Your task to perform on an android device: move a message to another label in the gmail app Image 0: 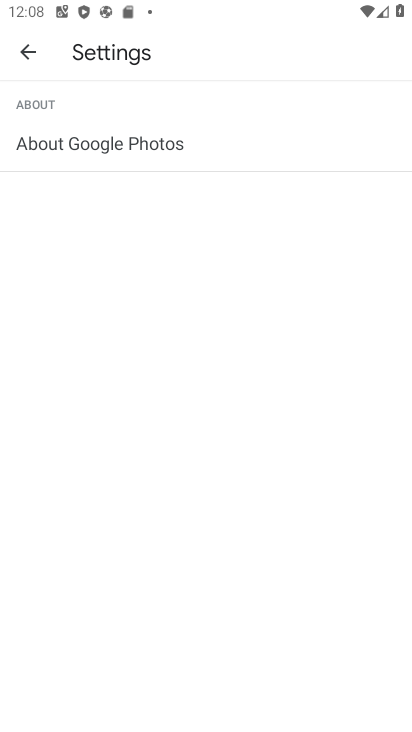
Step 0: press home button
Your task to perform on an android device: move a message to another label in the gmail app Image 1: 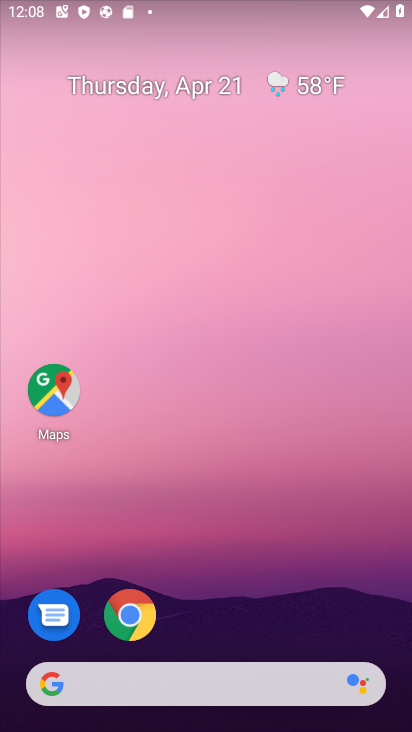
Step 1: drag from (368, 581) to (373, 195)
Your task to perform on an android device: move a message to another label in the gmail app Image 2: 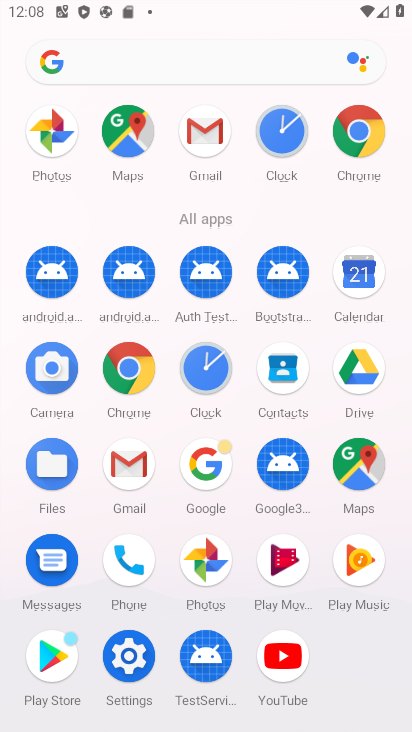
Step 2: click (213, 144)
Your task to perform on an android device: move a message to another label in the gmail app Image 3: 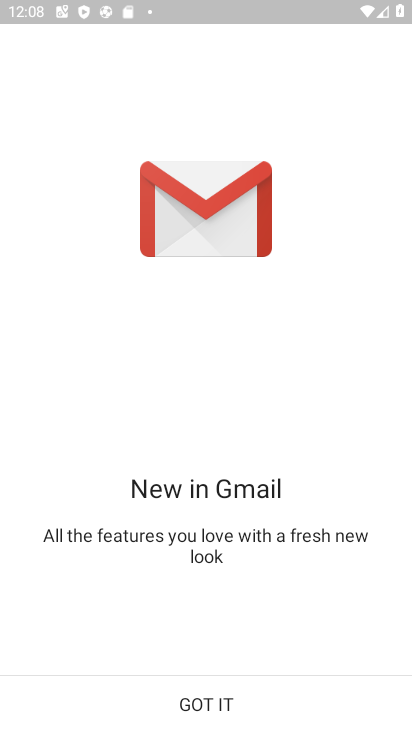
Step 3: click (204, 706)
Your task to perform on an android device: move a message to another label in the gmail app Image 4: 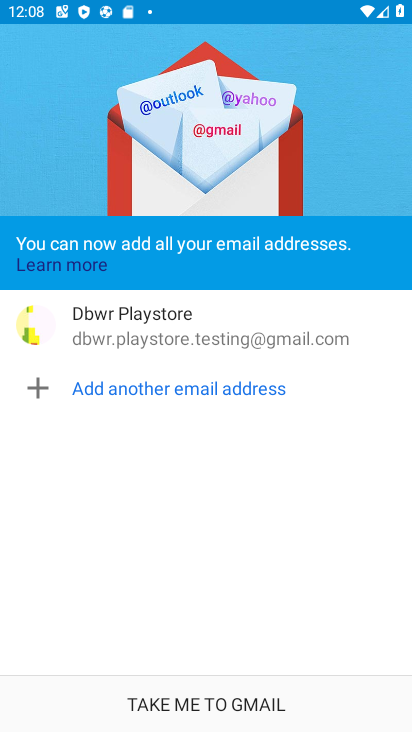
Step 4: click (243, 706)
Your task to perform on an android device: move a message to another label in the gmail app Image 5: 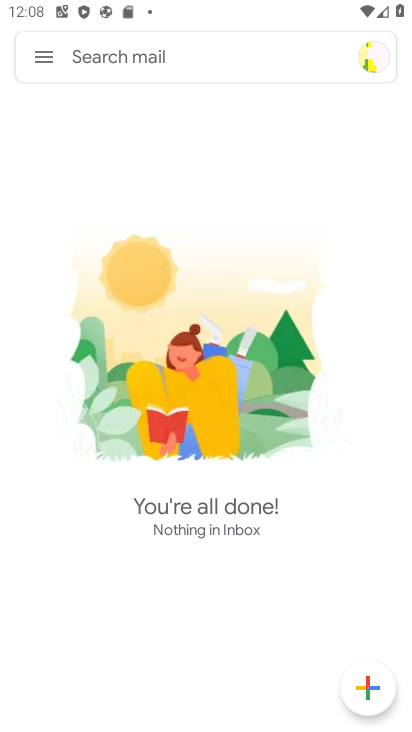
Step 5: click (43, 49)
Your task to perform on an android device: move a message to another label in the gmail app Image 6: 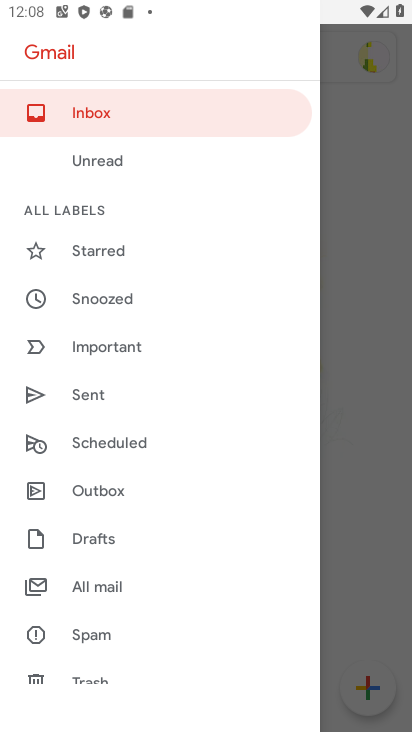
Step 6: drag from (194, 596) to (194, 342)
Your task to perform on an android device: move a message to another label in the gmail app Image 7: 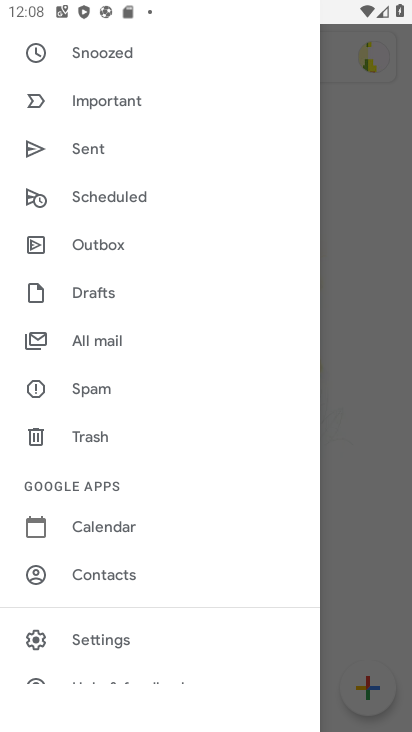
Step 7: click (131, 342)
Your task to perform on an android device: move a message to another label in the gmail app Image 8: 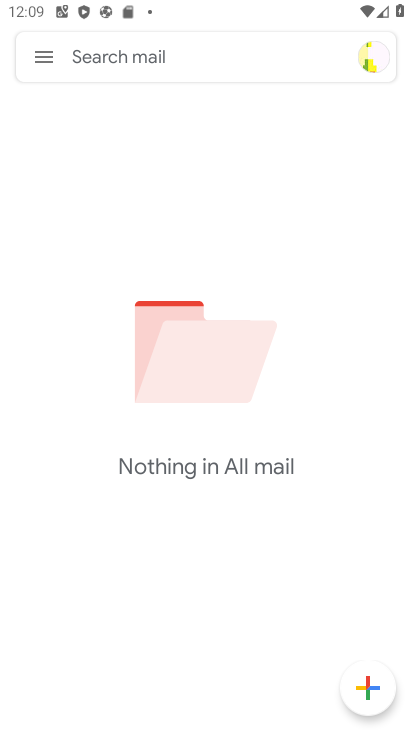
Step 8: click (40, 60)
Your task to perform on an android device: move a message to another label in the gmail app Image 9: 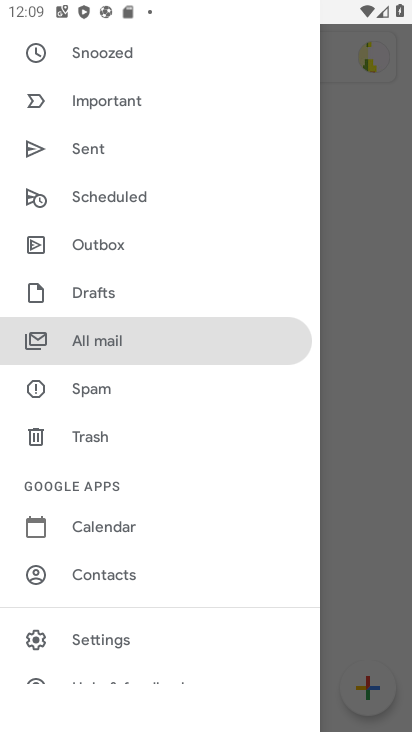
Step 9: task complete